Your task to perform on an android device: Empty the shopping cart on walmart.com. Add "alienware aurora" to the cart on walmart.com, then select checkout. Image 0: 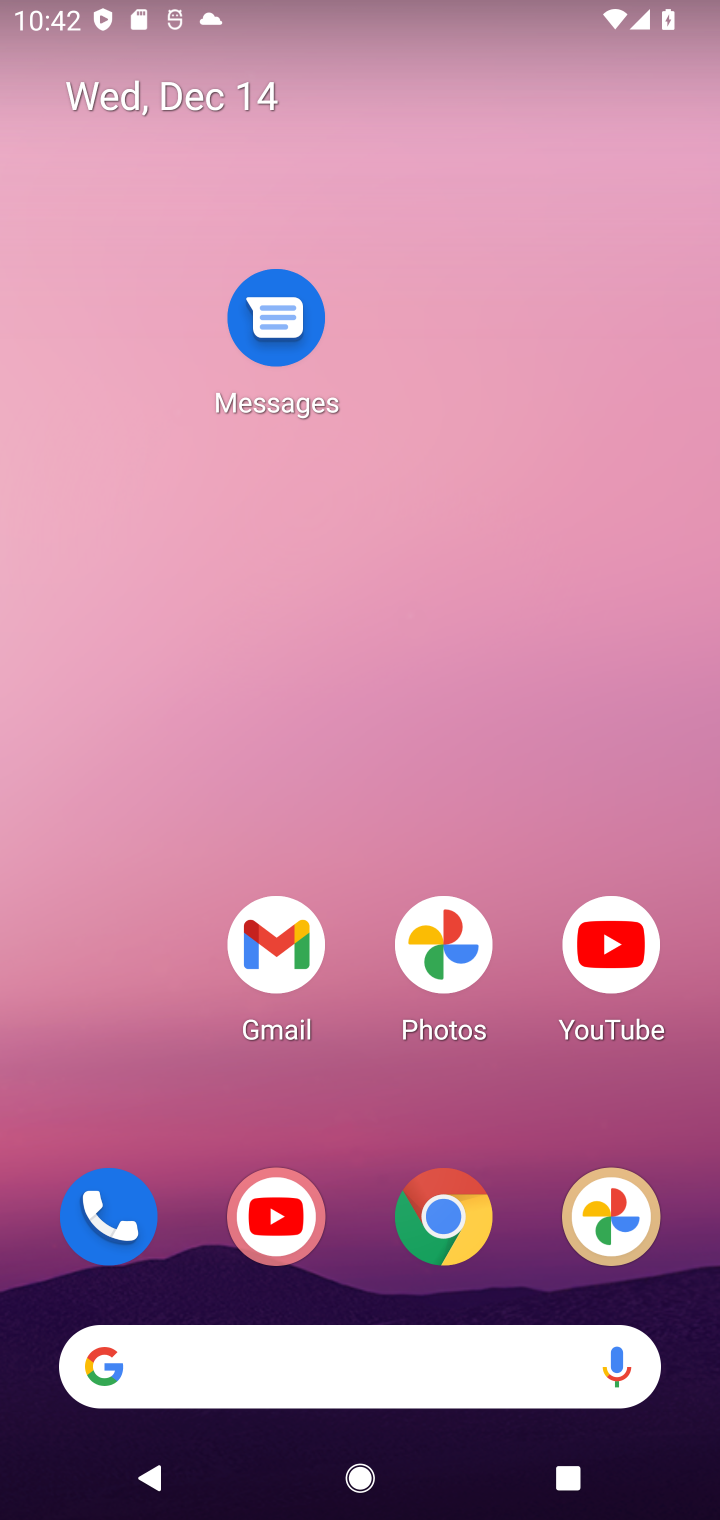
Step 0: drag from (420, 834) to (417, 383)
Your task to perform on an android device: Empty the shopping cart on walmart.com. Add "alienware aurora" to the cart on walmart.com, then select checkout. Image 1: 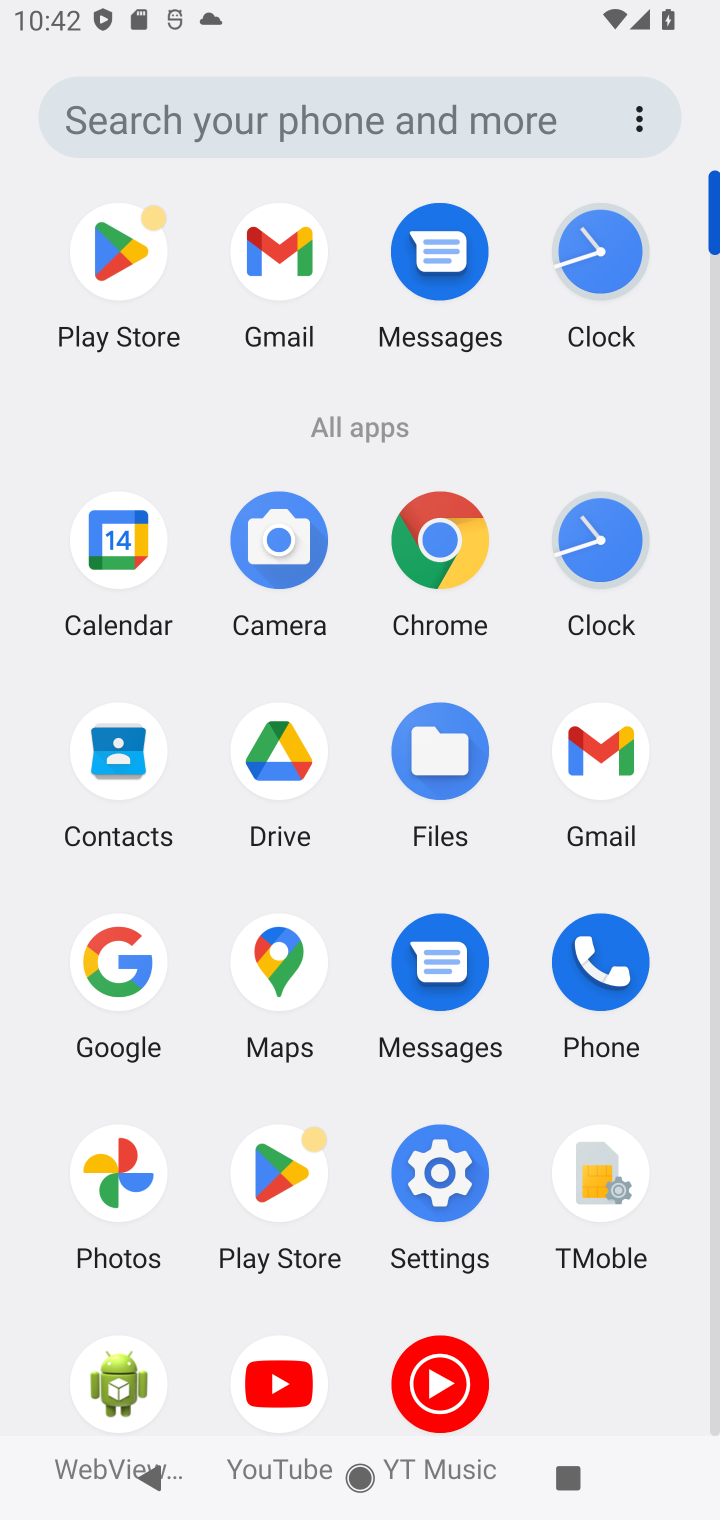
Step 1: click (121, 945)
Your task to perform on an android device: Empty the shopping cart on walmart.com. Add "alienware aurora" to the cart on walmart.com, then select checkout. Image 2: 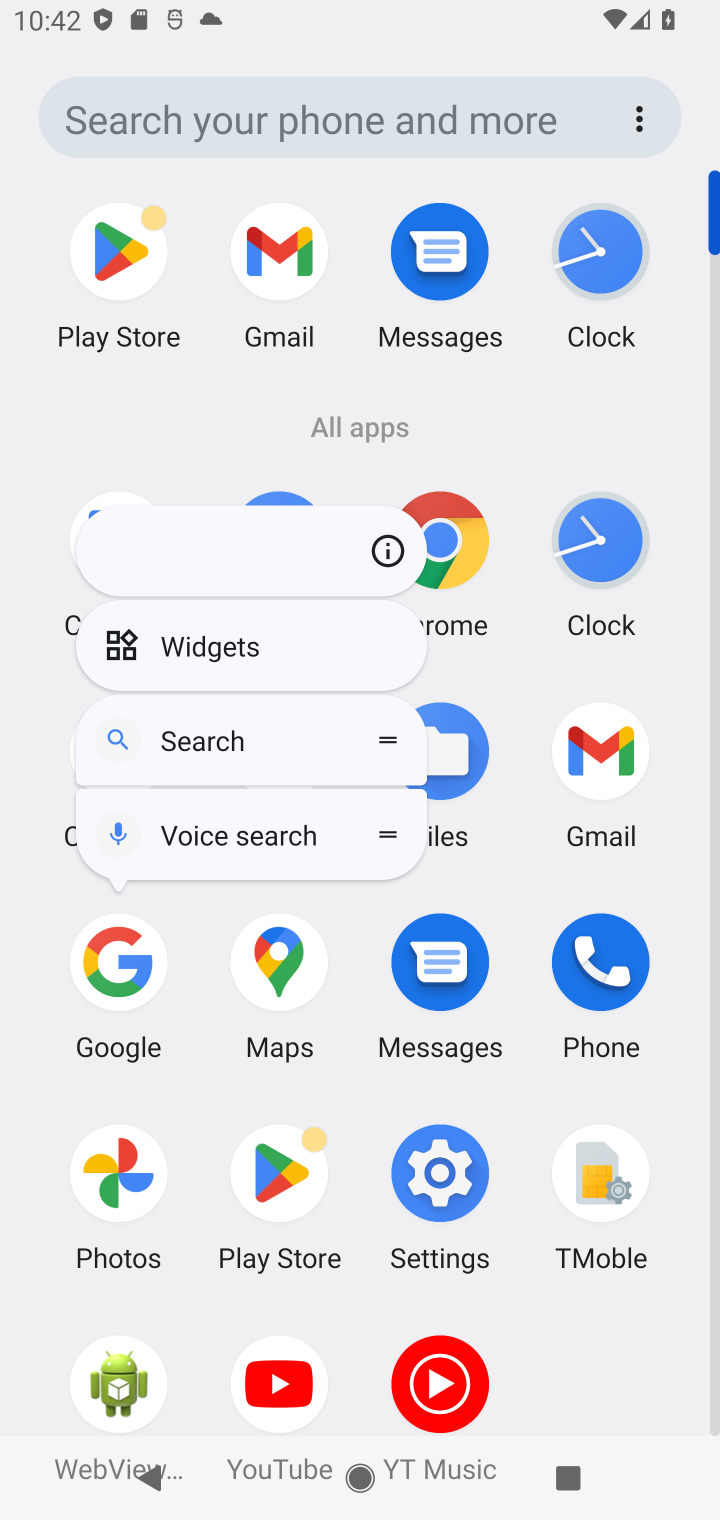
Step 2: click (103, 976)
Your task to perform on an android device: Empty the shopping cart on walmart.com. Add "alienware aurora" to the cart on walmart.com, then select checkout. Image 3: 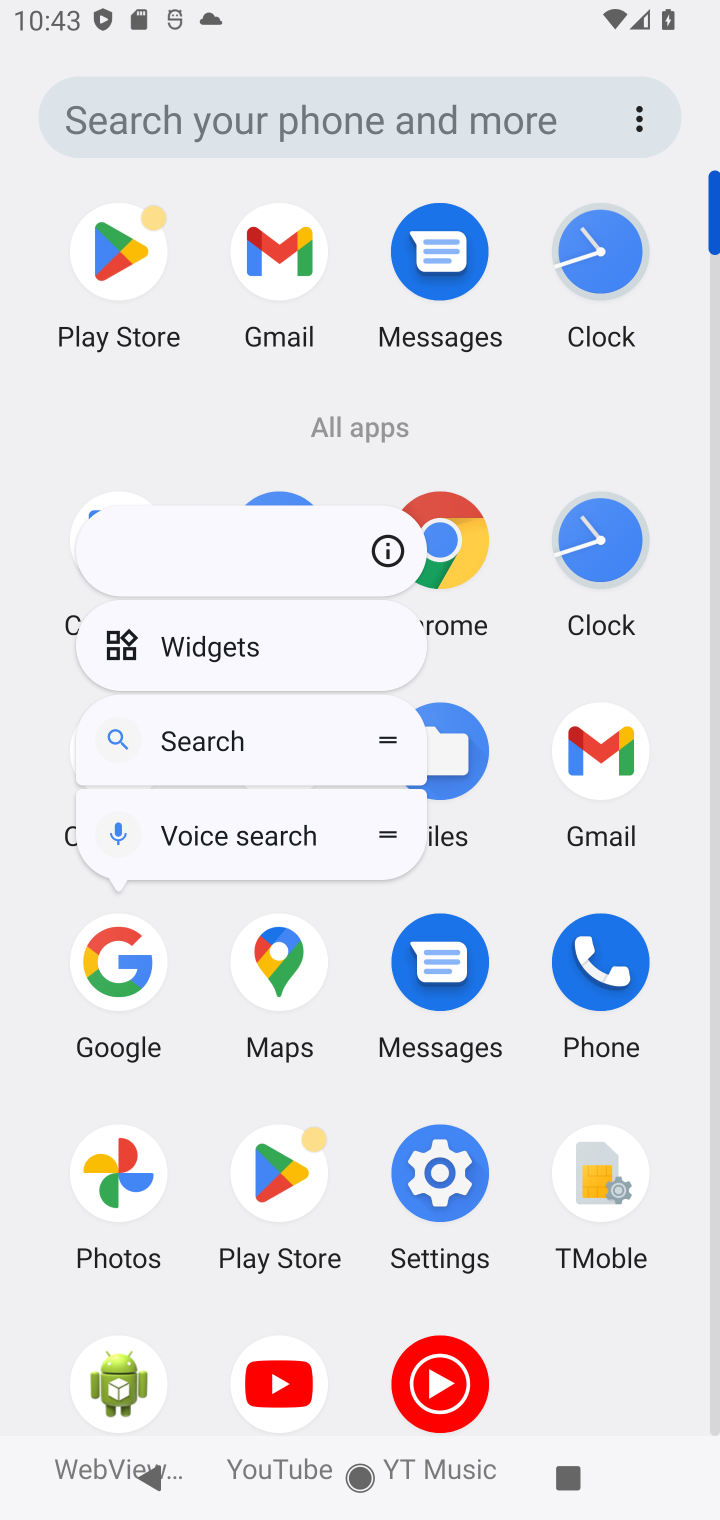
Step 3: click (112, 959)
Your task to perform on an android device: Empty the shopping cart on walmart.com. Add "alienware aurora" to the cart on walmart.com, then select checkout. Image 4: 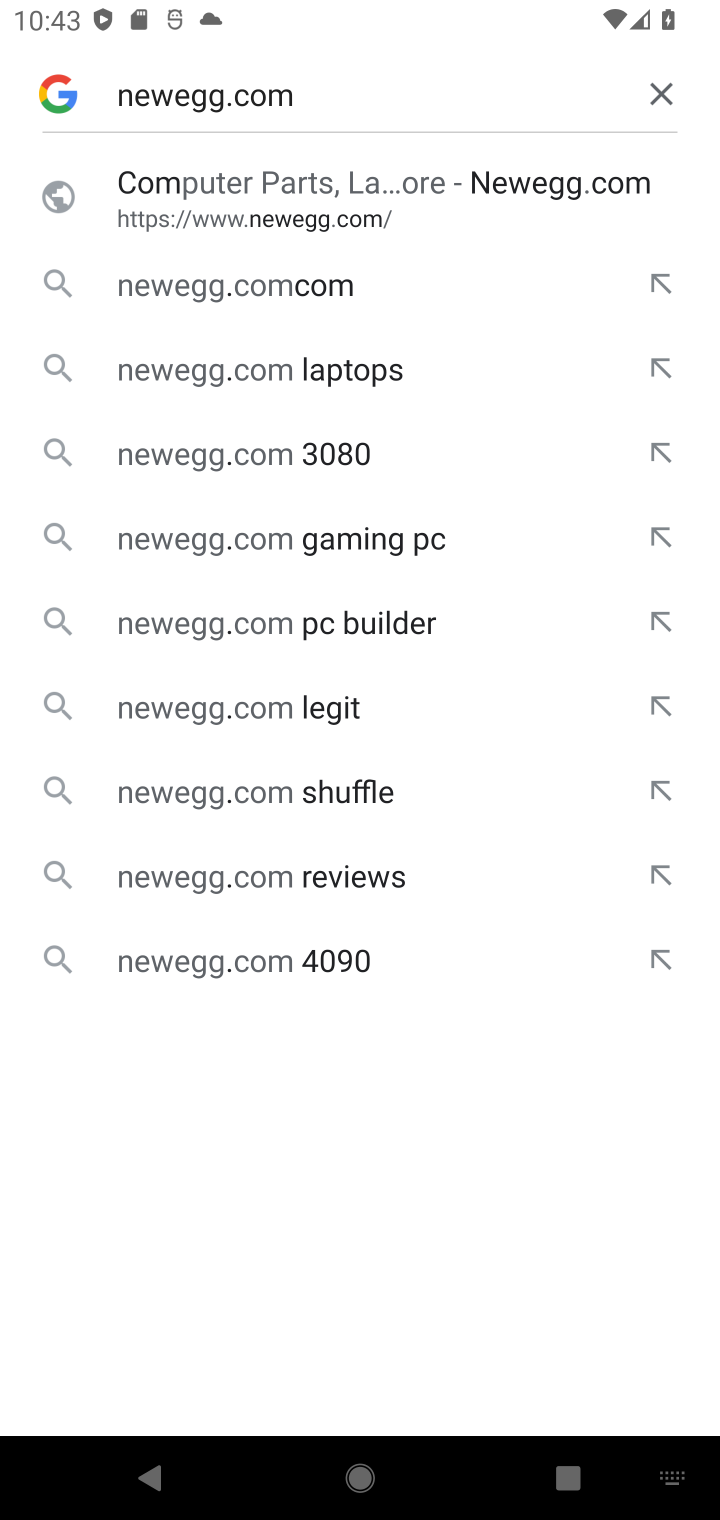
Step 4: click (677, 94)
Your task to perform on an android device: Empty the shopping cart on walmart.com. Add "alienware aurora" to the cart on walmart.com, then select checkout. Image 5: 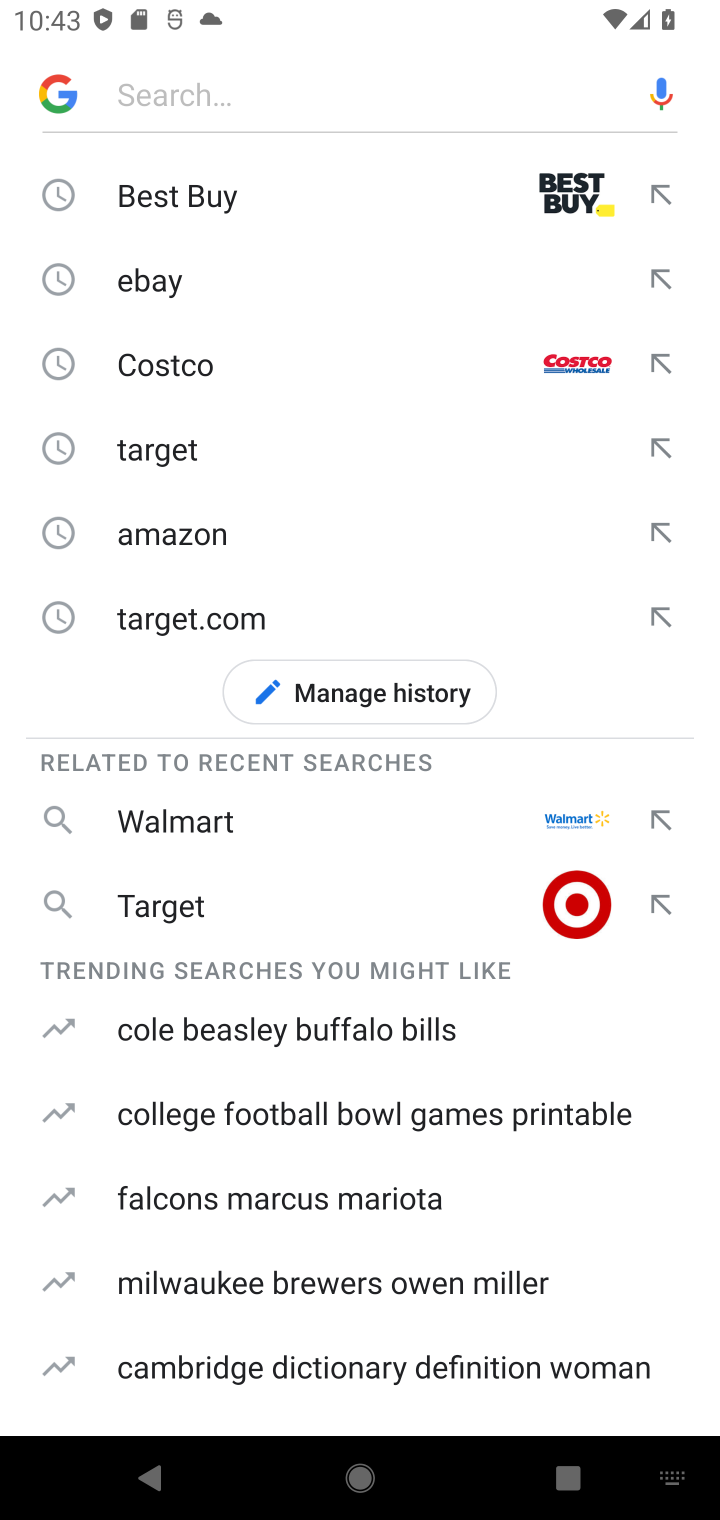
Step 5: click (161, 822)
Your task to perform on an android device: Empty the shopping cart on walmart.com. Add "alienware aurora" to the cart on walmart.com, then select checkout. Image 6: 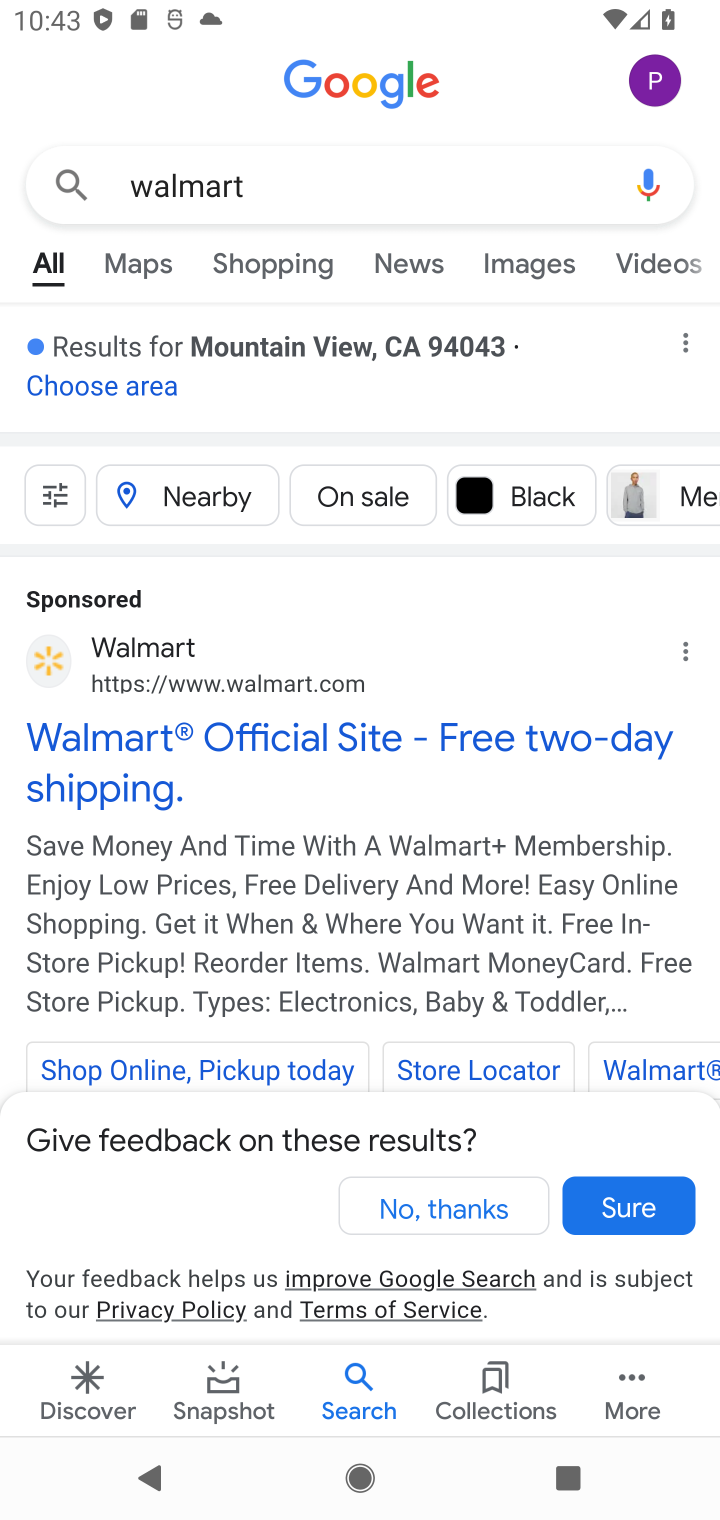
Step 6: click (157, 756)
Your task to perform on an android device: Empty the shopping cart on walmart.com. Add "alienware aurora" to the cart on walmart.com, then select checkout. Image 7: 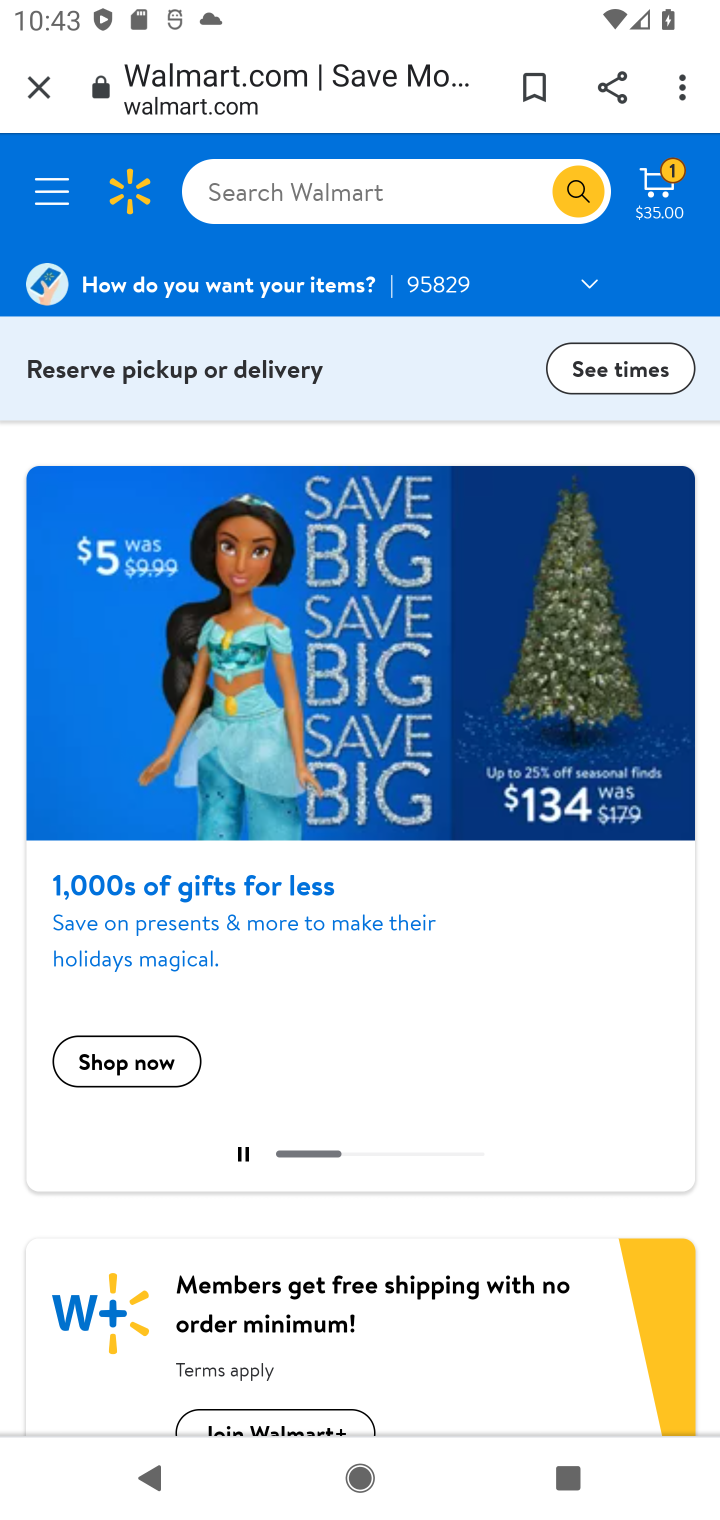
Step 7: click (656, 175)
Your task to perform on an android device: Empty the shopping cart on walmart.com. Add "alienware aurora" to the cart on walmart.com, then select checkout. Image 8: 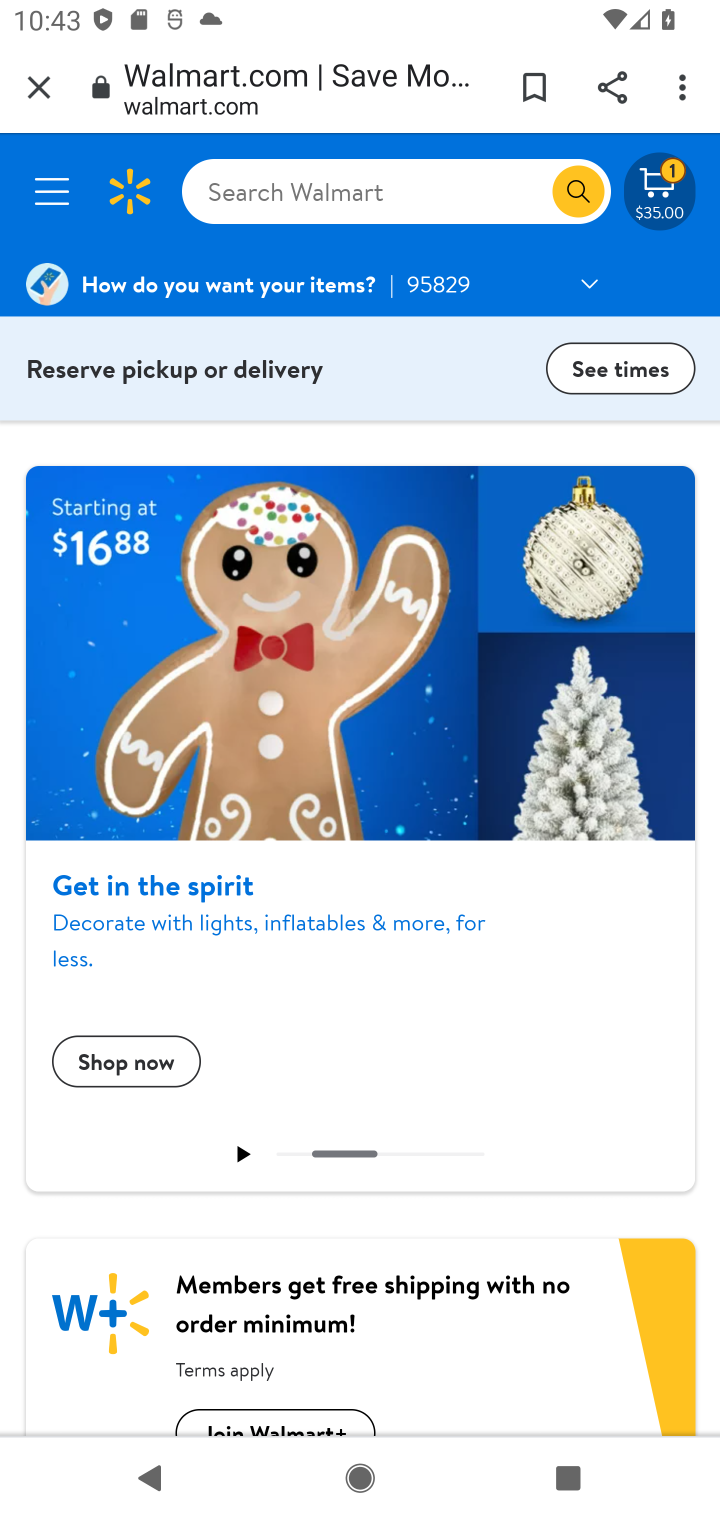
Step 8: drag from (416, 945) to (421, 289)
Your task to perform on an android device: Empty the shopping cart on walmart.com. Add "alienware aurora" to the cart on walmart.com, then select checkout. Image 9: 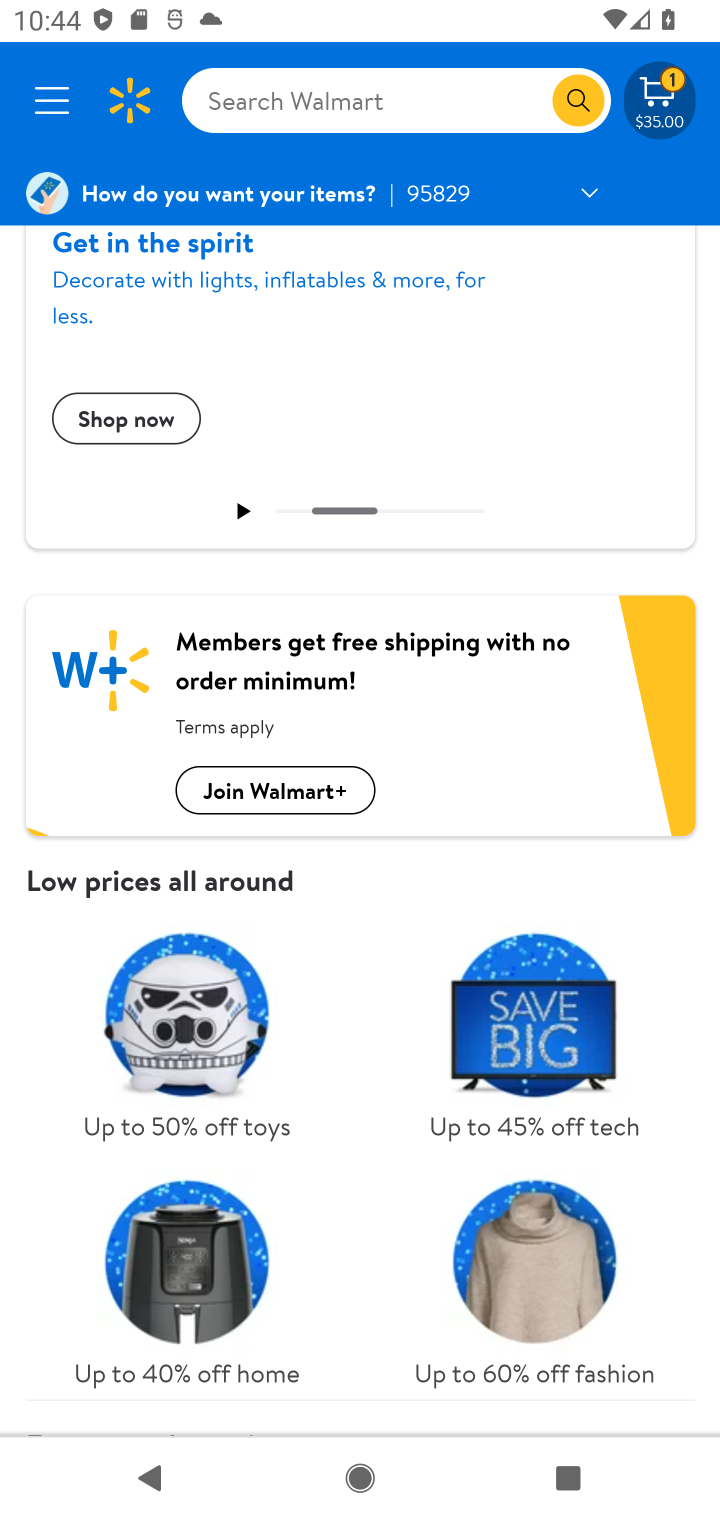
Step 9: drag from (395, 421) to (425, 897)
Your task to perform on an android device: Empty the shopping cart on walmart.com. Add "alienware aurora" to the cart on walmart.com, then select checkout. Image 10: 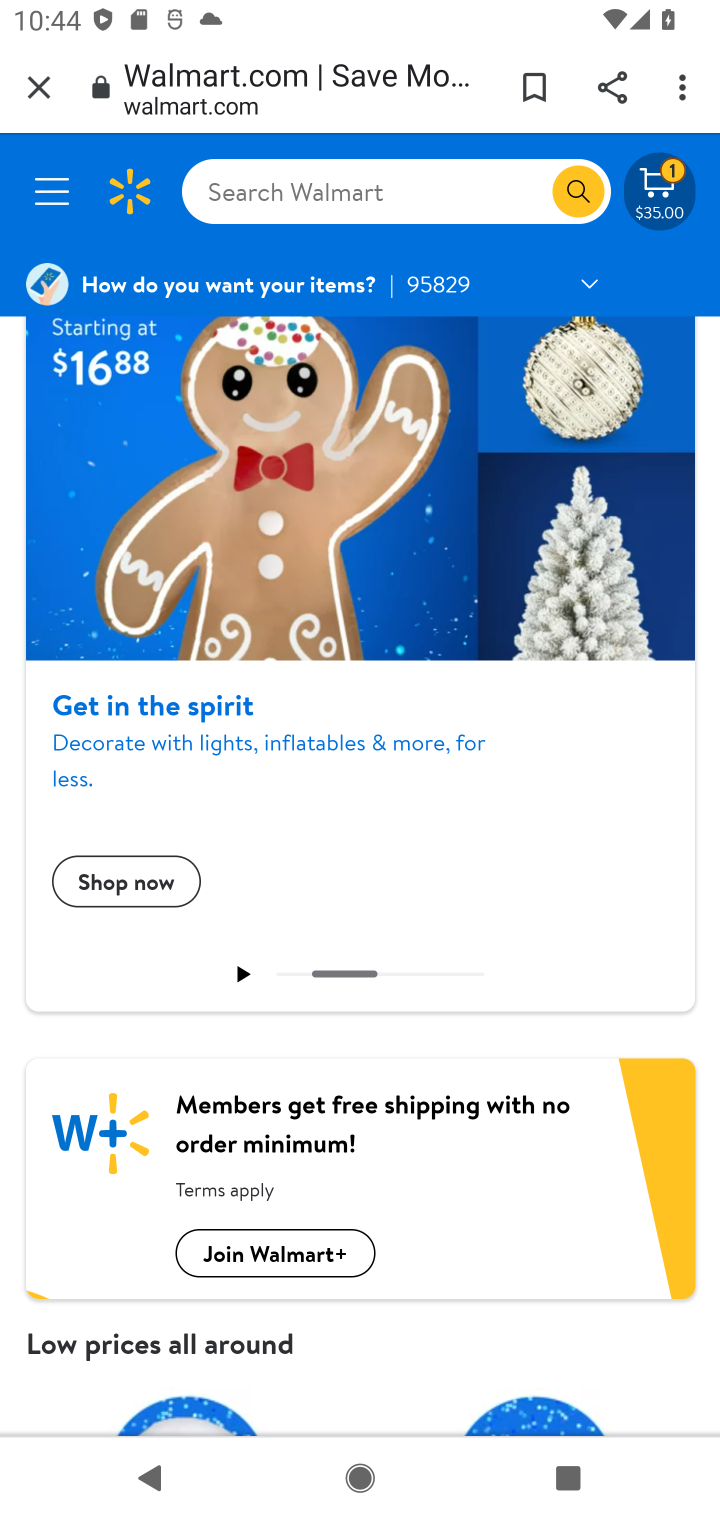
Step 10: drag from (447, 463) to (463, 922)
Your task to perform on an android device: Empty the shopping cart on walmart.com. Add "alienware aurora" to the cart on walmart.com, then select checkout. Image 11: 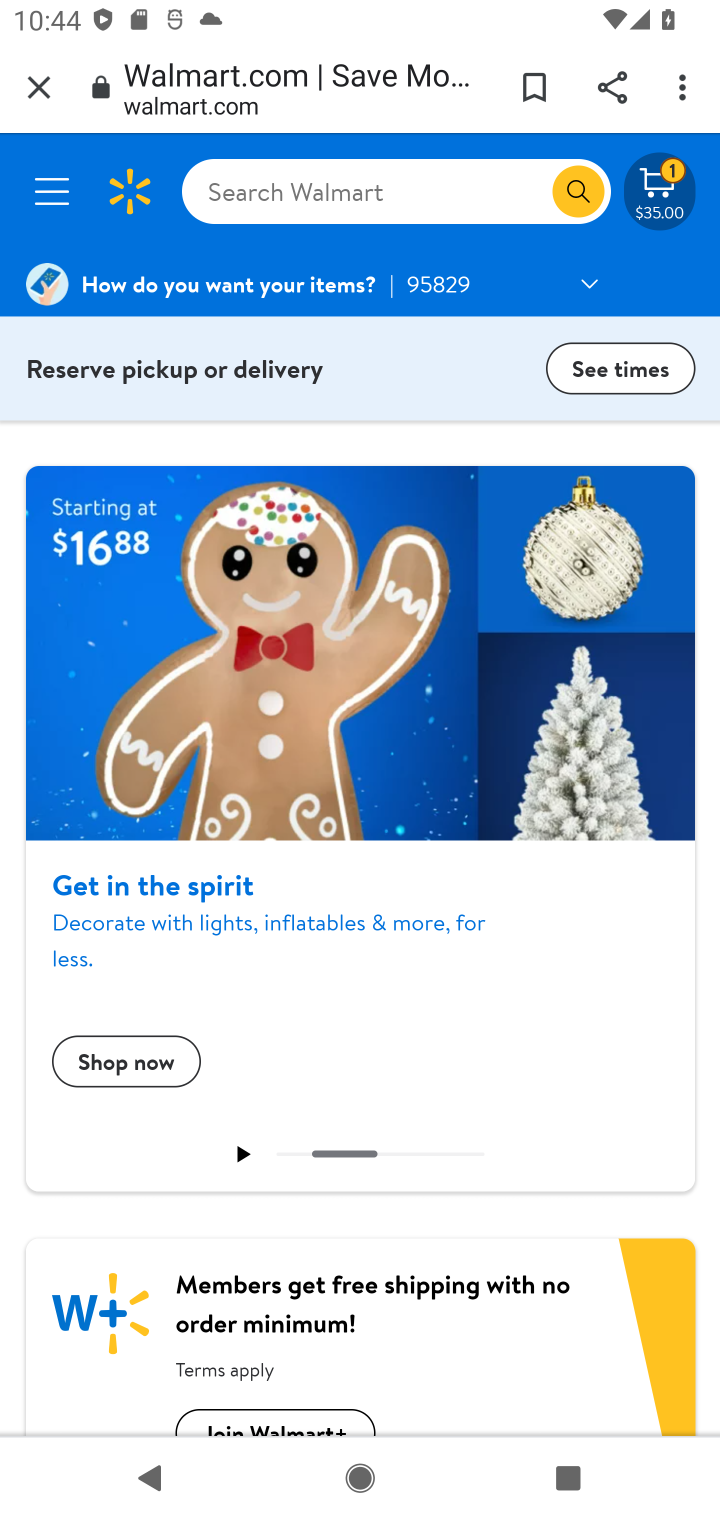
Step 11: drag from (353, 382) to (312, 1029)
Your task to perform on an android device: Empty the shopping cart on walmart.com. Add "alienware aurora" to the cart on walmart.com, then select checkout. Image 12: 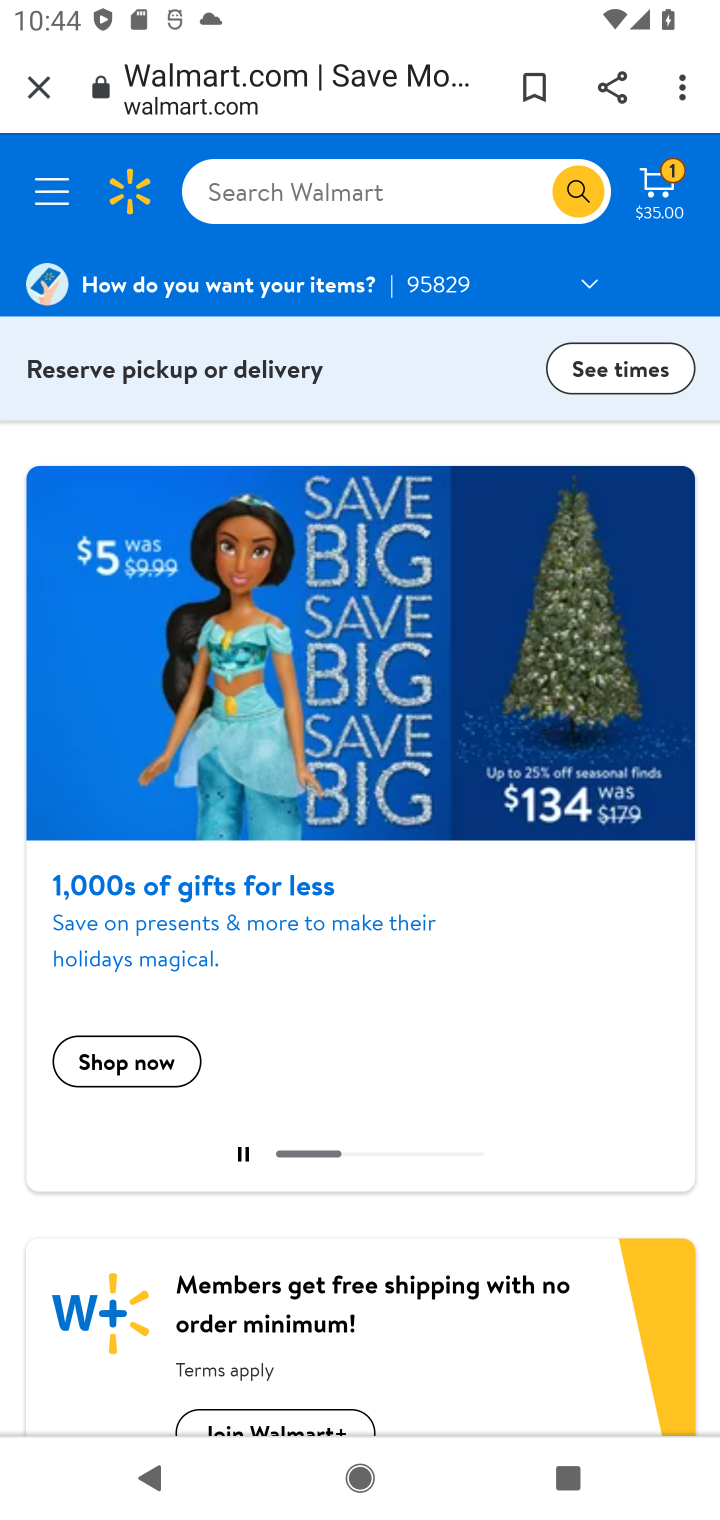
Step 12: drag from (373, 1104) to (344, 616)
Your task to perform on an android device: Empty the shopping cart on walmart.com. Add "alienware aurora" to the cart on walmart.com, then select checkout. Image 13: 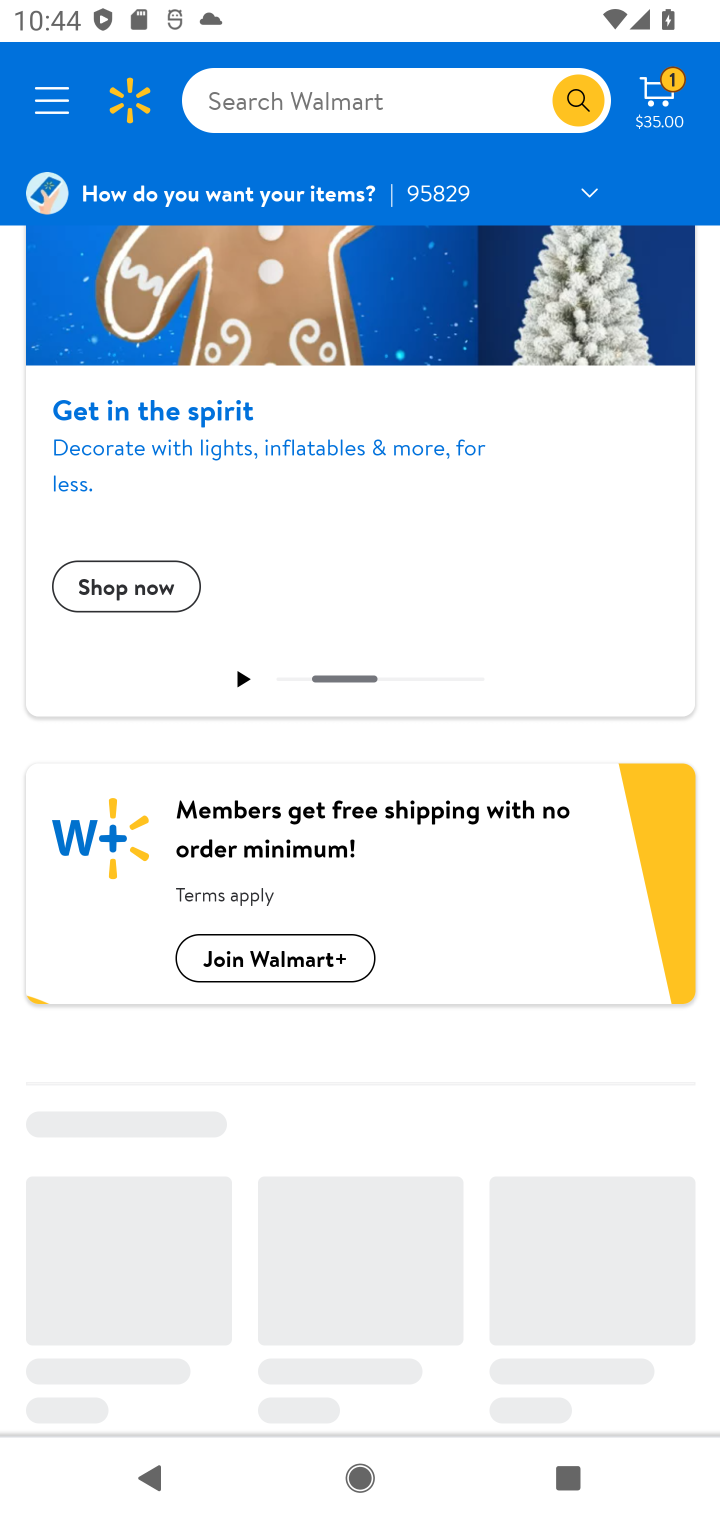
Step 13: drag from (394, 1184) to (400, 603)
Your task to perform on an android device: Empty the shopping cart on walmart.com. Add "alienware aurora" to the cart on walmart.com, then select checkout. Image 14: 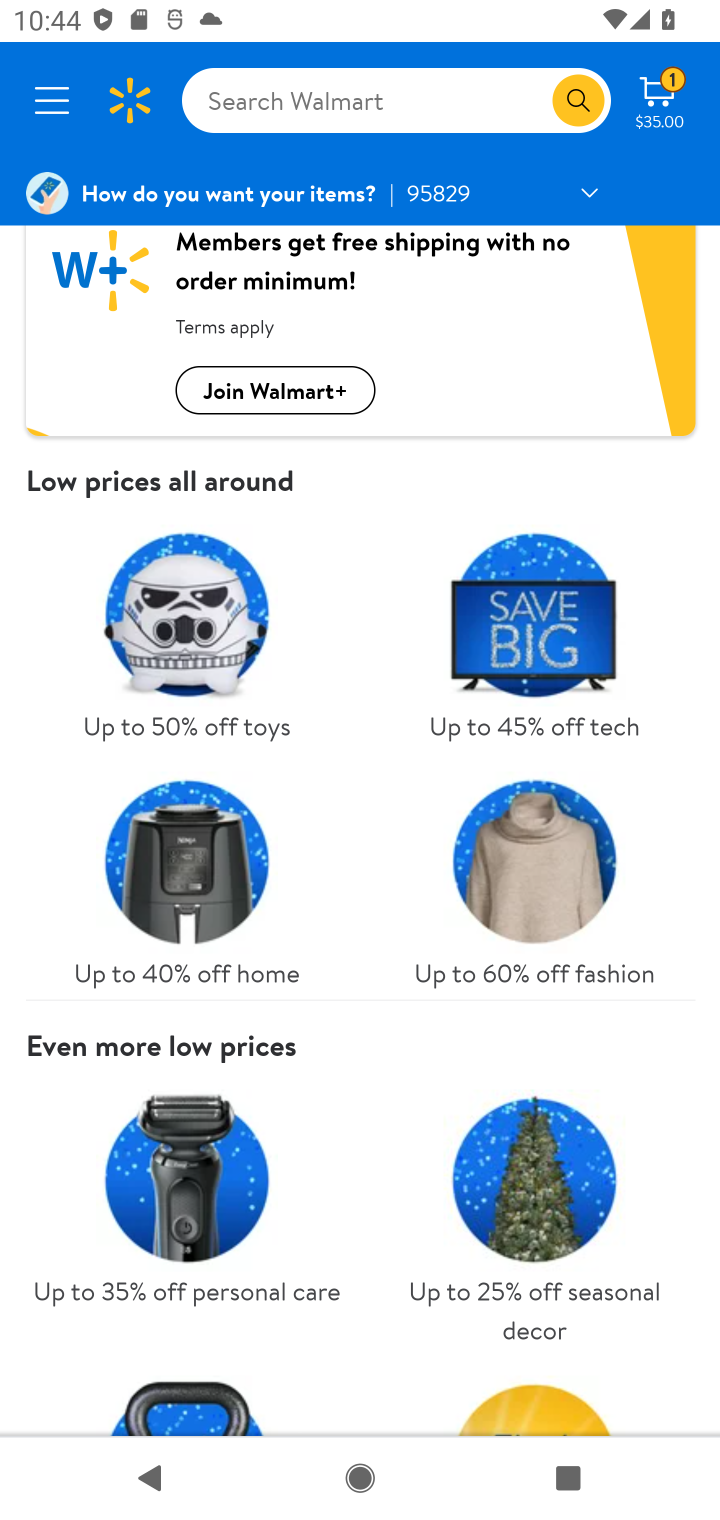
Step 14: drag from (384, 1085) to (335, 589)
Your task to perform on an android device: Empty the shopping cart on walmart.com. Add "alienware aurora" to the cart on walmart.com, then select checkout. Image 15: 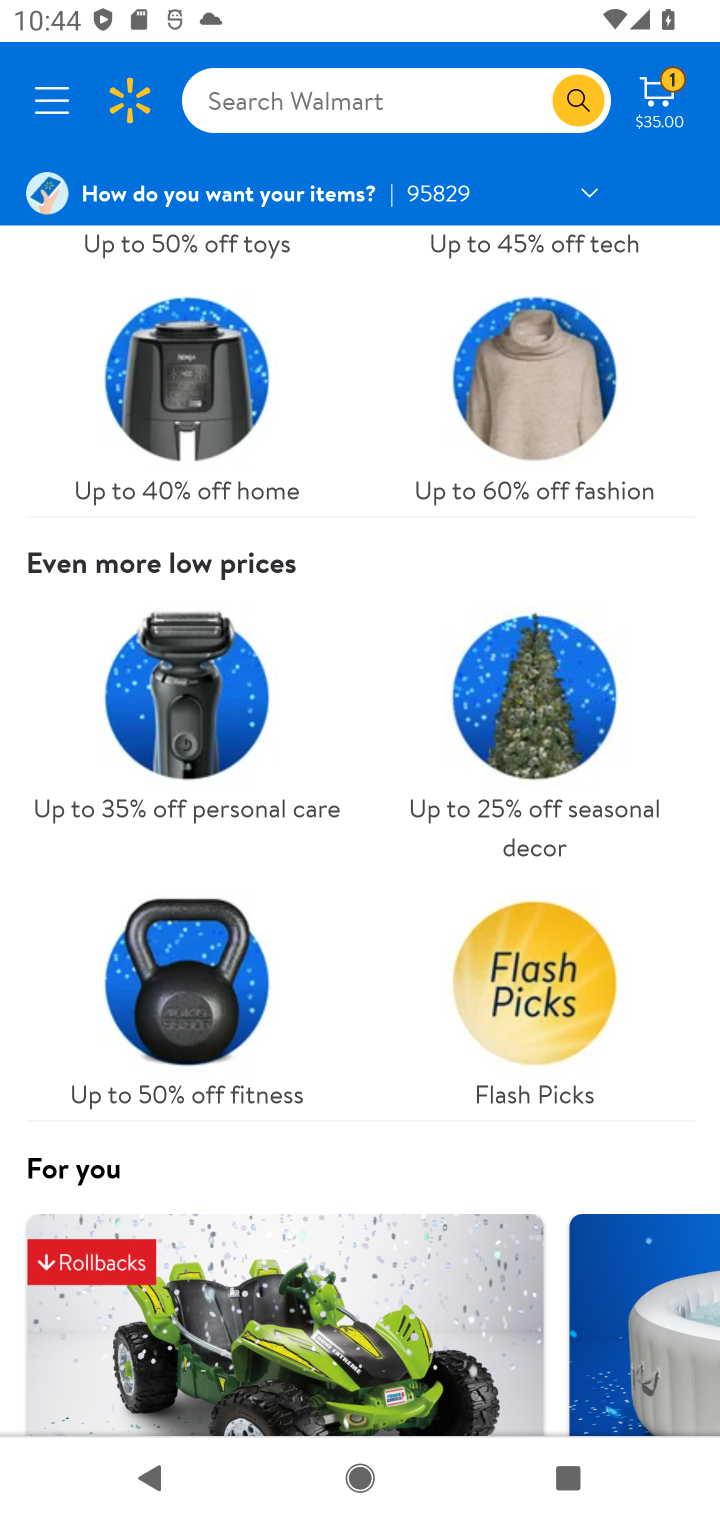
Step 15: click (659, 97)
Your task to perform on an android device: Empty the shopping cart on walmart.com. Add "alienware aurora" to the cart on walmart.com, then select checkout. Image 16: 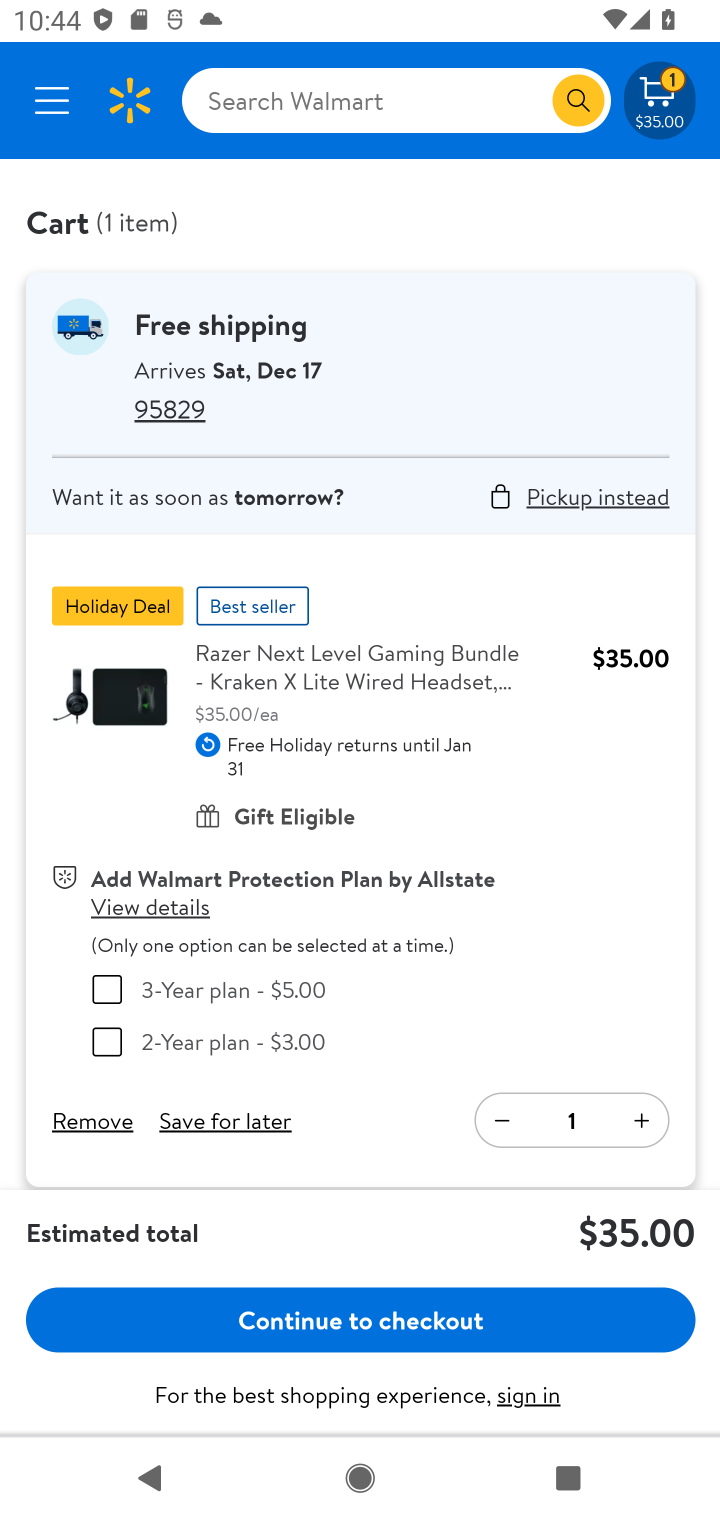
Step 16: click (96, 1126)
Your task to perform on an android device: Empty the shopping cart on walmart.com. Add "alienware aurora" to the cart on walmart.com, then select checkout. Image 17: 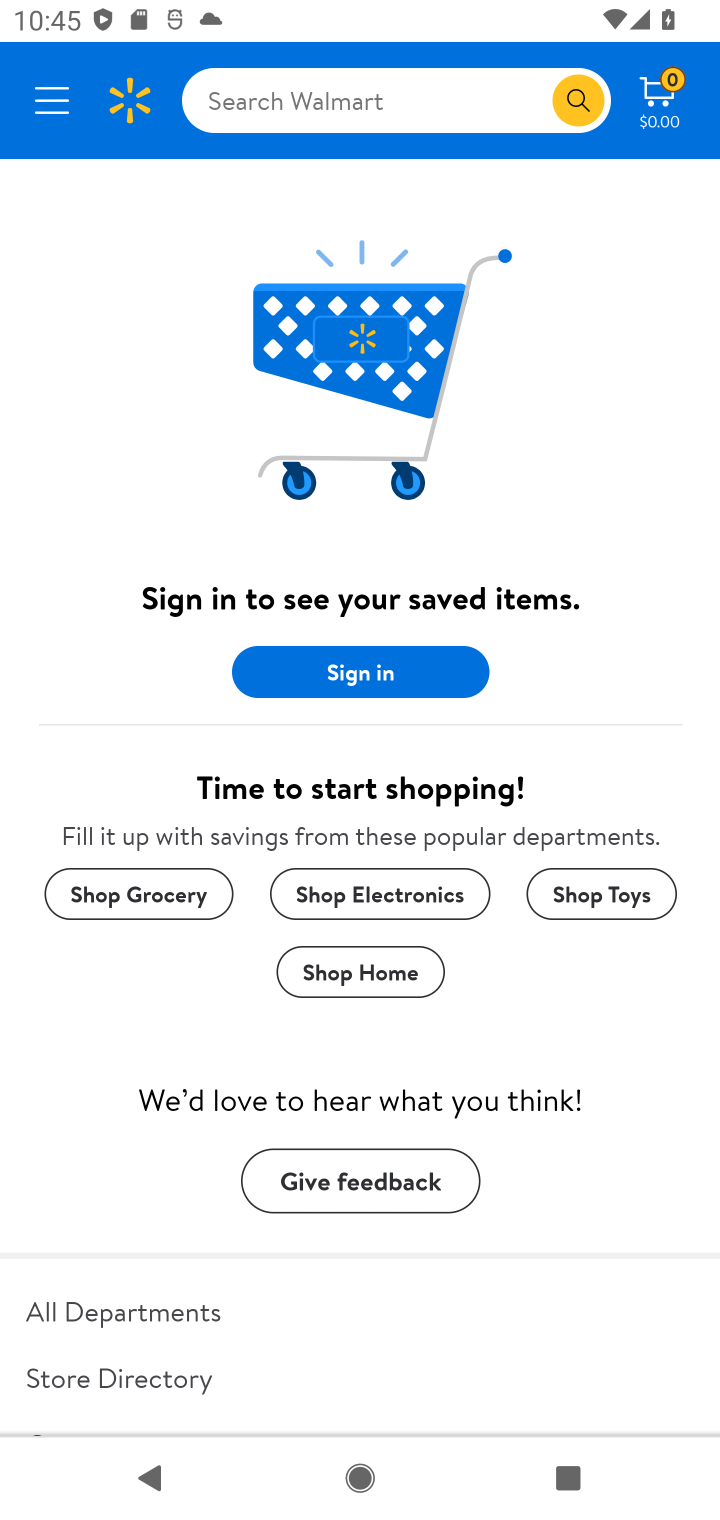
Step 17: click (344, 90)
Your task to perform on an android device: Empty the shopping cart on walmart.com. Add "alienware aurora" to the cart on walmart.com, then select checkout. Image 18: 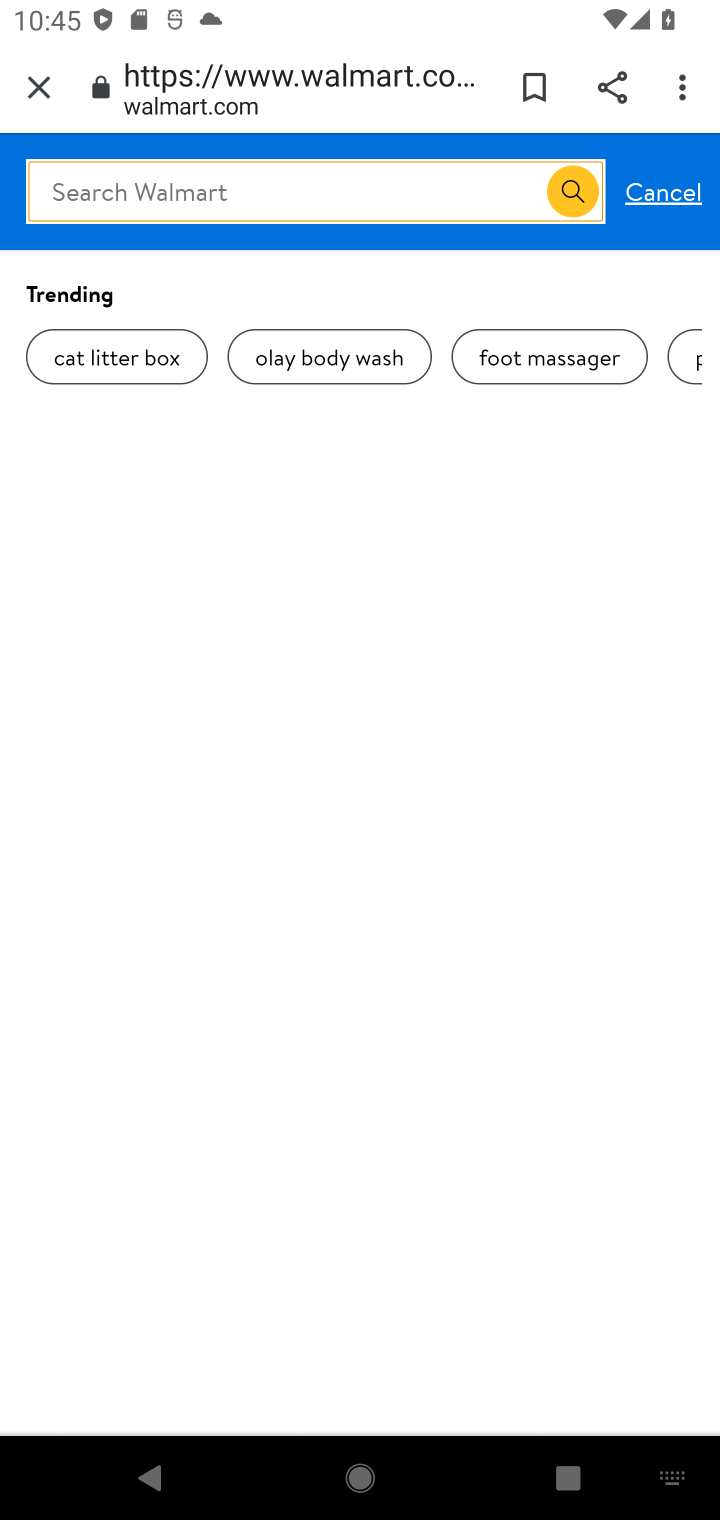
Step 18: type "alienware aurora"
Your task to perform on an android device: Empty the shopping cart on walmart.com. Add "alienware aurora" to the cart on walmart.com, then select checkout. Image 19: 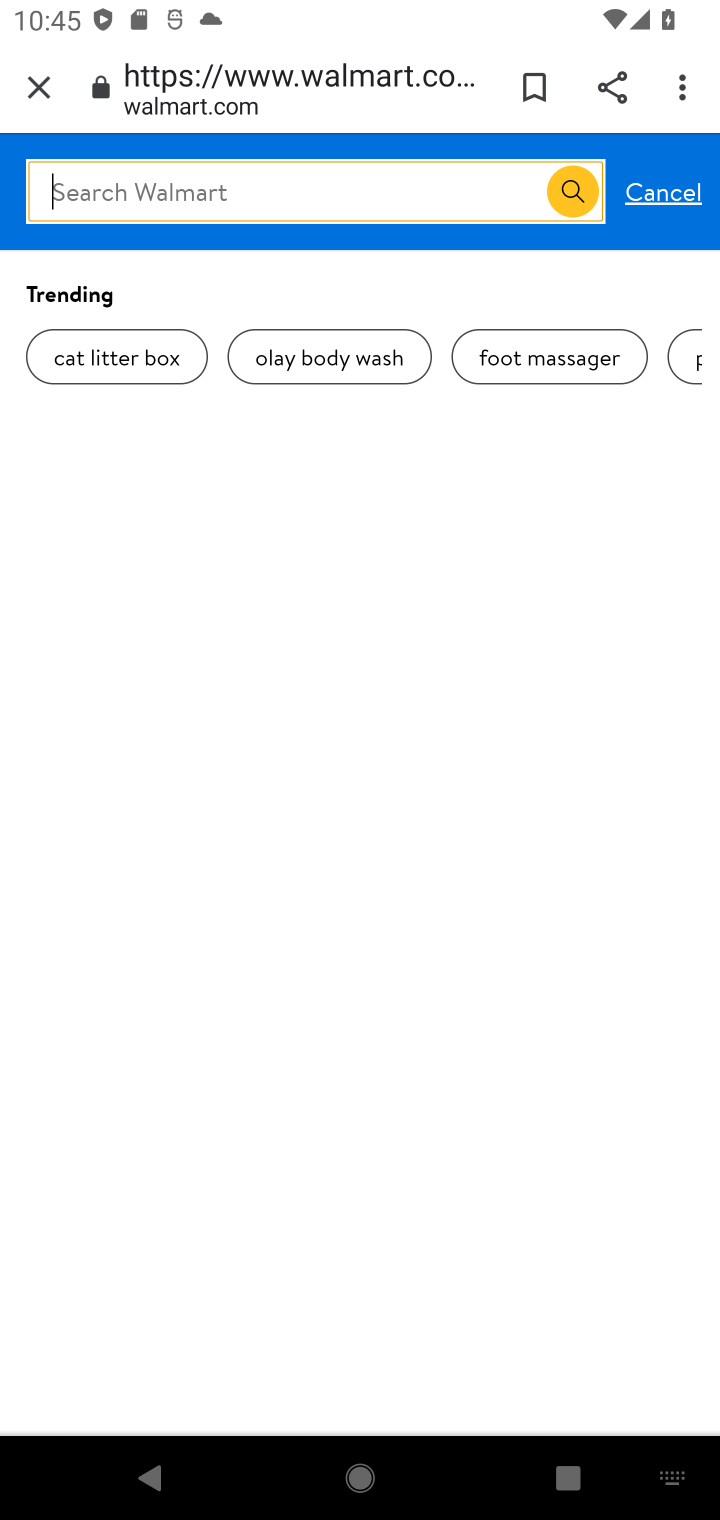
Step 19: click (558, 173)
Your task to perform on an android device: Empty the shopping cart on walmart.com. Add "alienware aurora" to the cart on walmart.com, then select checkout. Image 20: 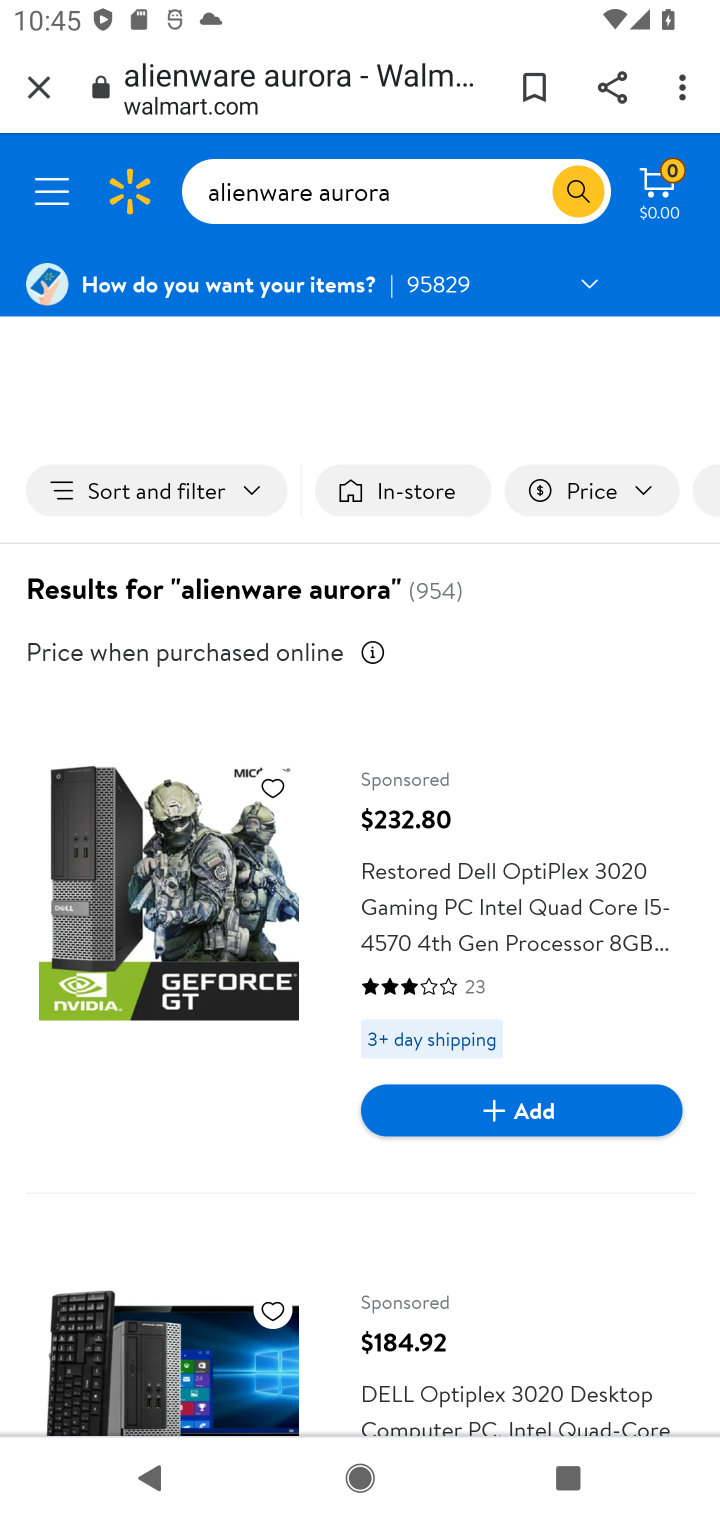
Step 20: click (519, 1105)
Your task to perform on an android device: Empty the shopping cart on walmart.com. Add "alienware aurora" to the cart on walmart.com, then select checkout. Image 21: 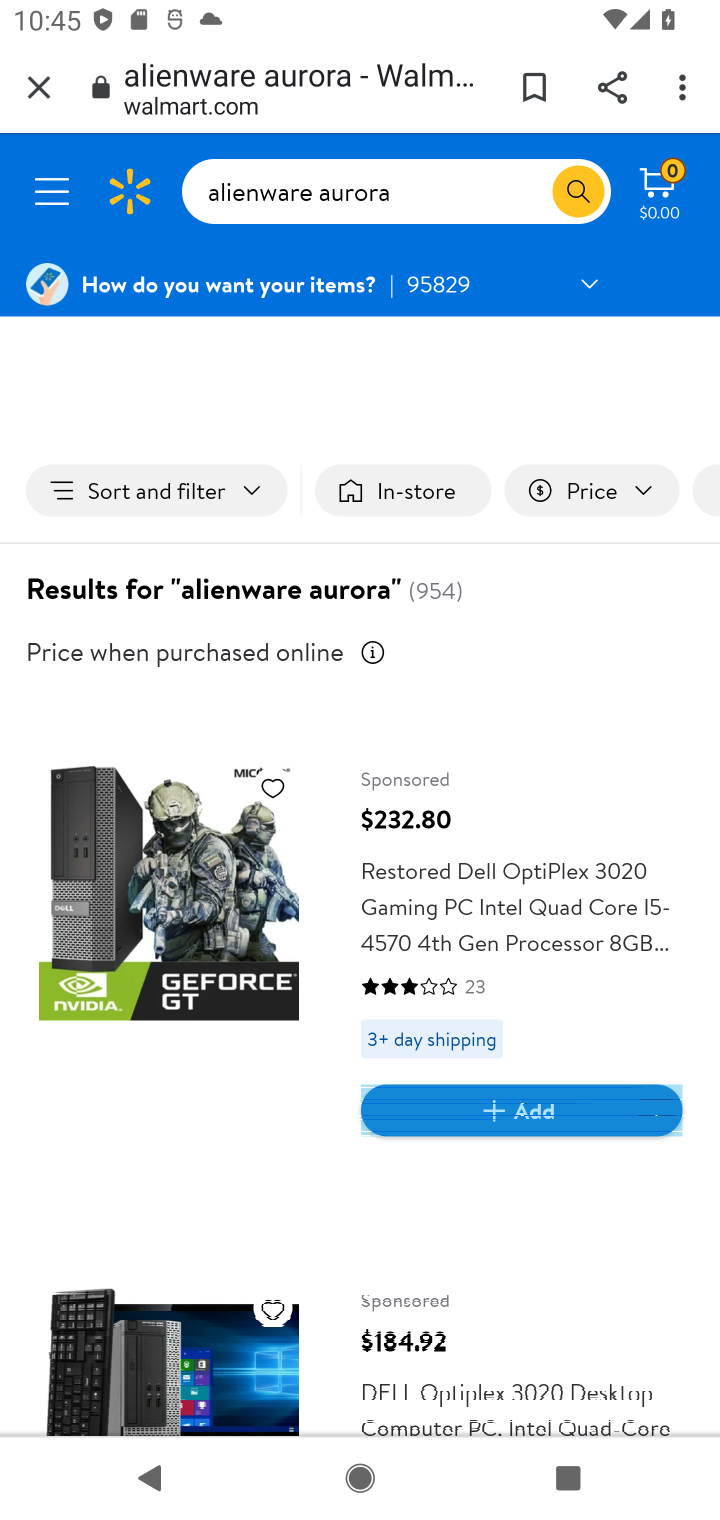
Step 21: click (527, 1114)
Your task to perform on an android device: Empty the shopping cart on walmart.com. Add "alienware aurora" to the cart on walmart.com, then select checkout. Image 22: 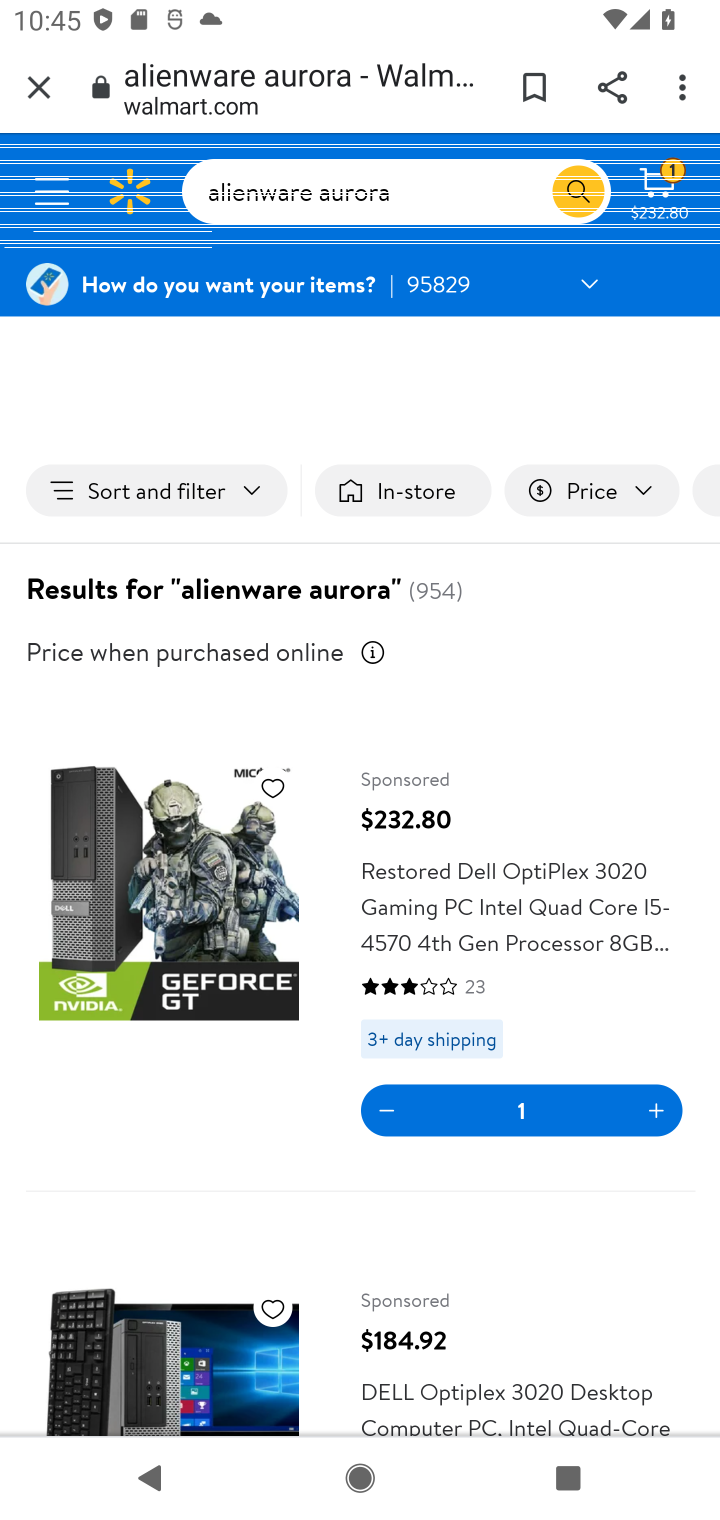
Step 22: click (663, 181)
Your task to perform on an android device: Empty the shopping cart on walmart.com. Add "alienware aurora" to the cart on walmart.com, then select checkout. Image 23: 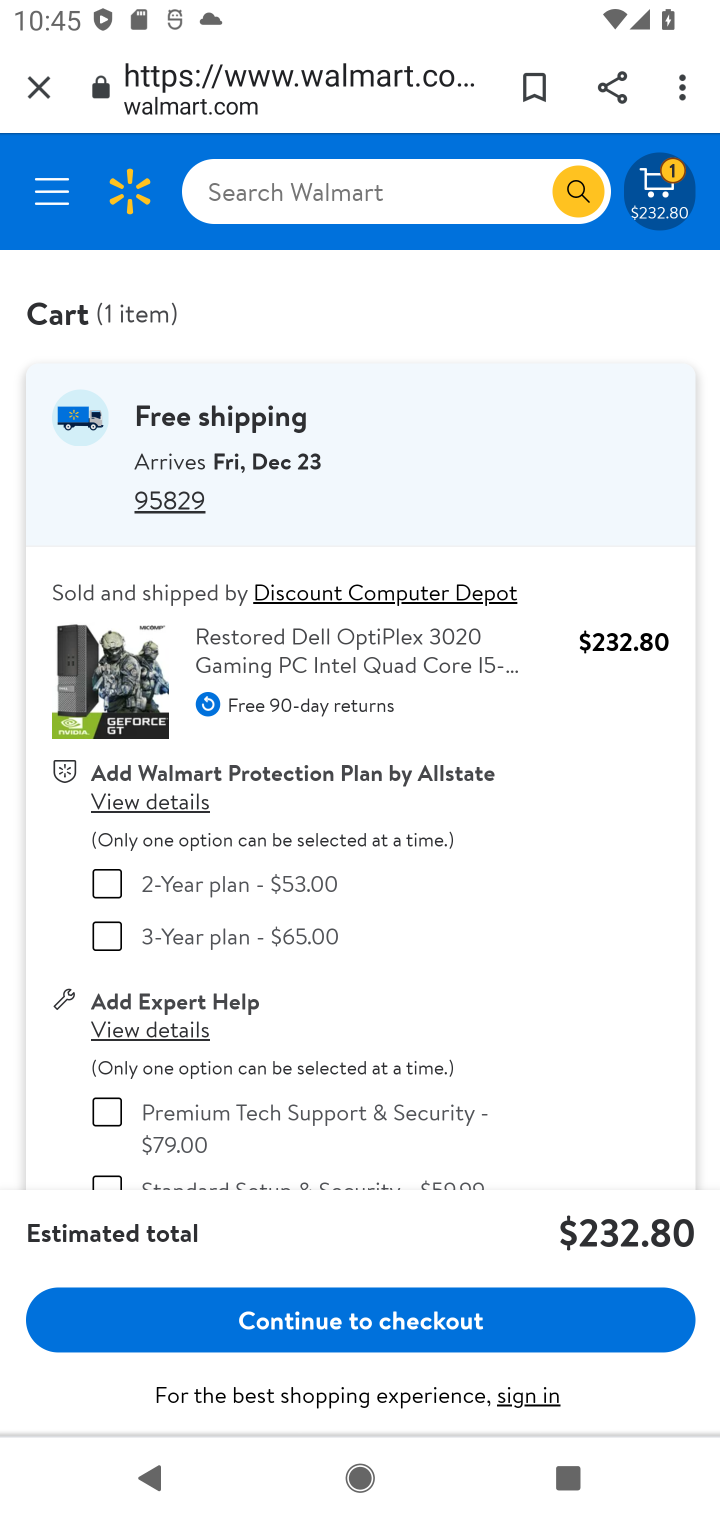
Step 23: click (424, 1325)
Your task to perform on an android device: Empty the shopping cart on walmart.com. Add "alienware aurora" to the cart on walmart.com, then select checkout. Image 24: 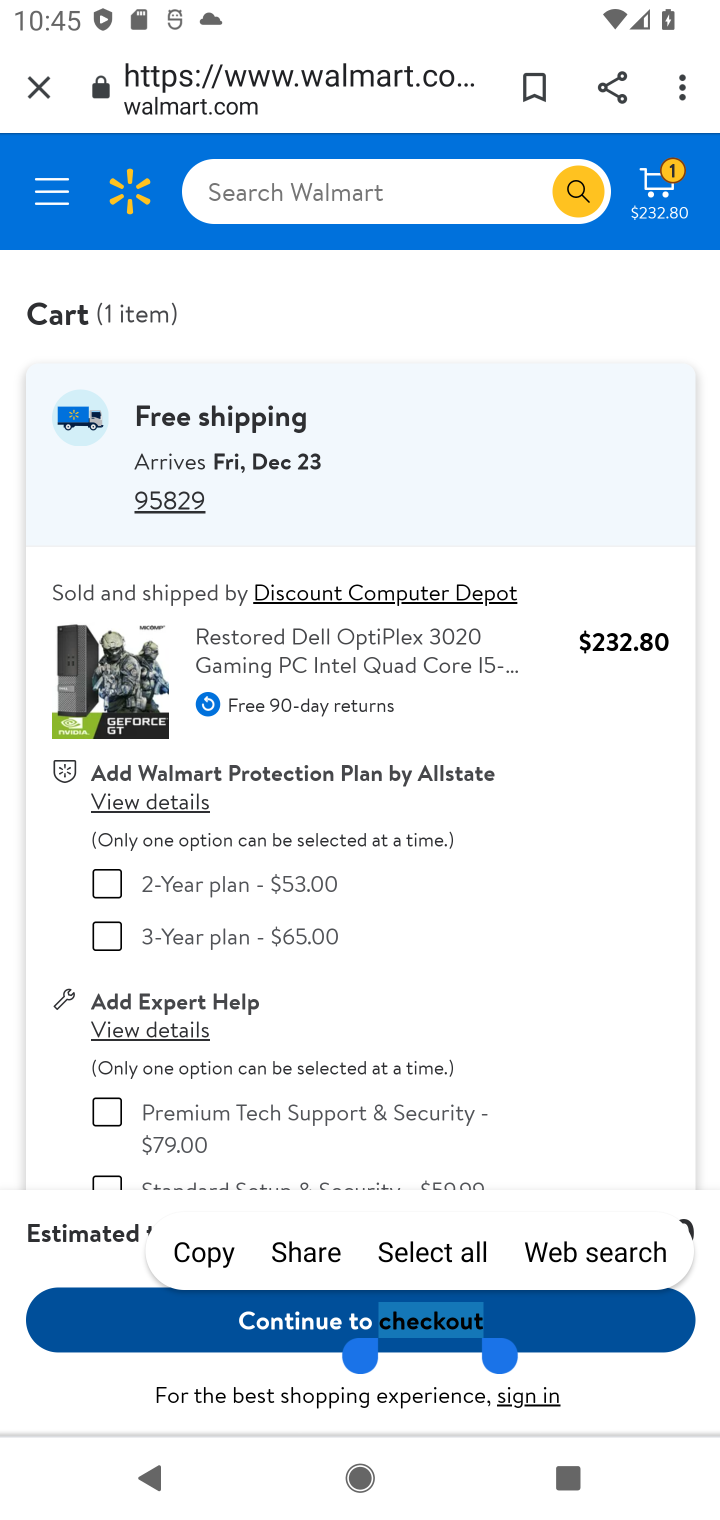
Step 24: click (315, 1331)
Your task to perform on an android device: Empty the shopping cart on walmart.com. Add "alienware aurora" to the cart on walmart.com, then select checkout. Image 25: 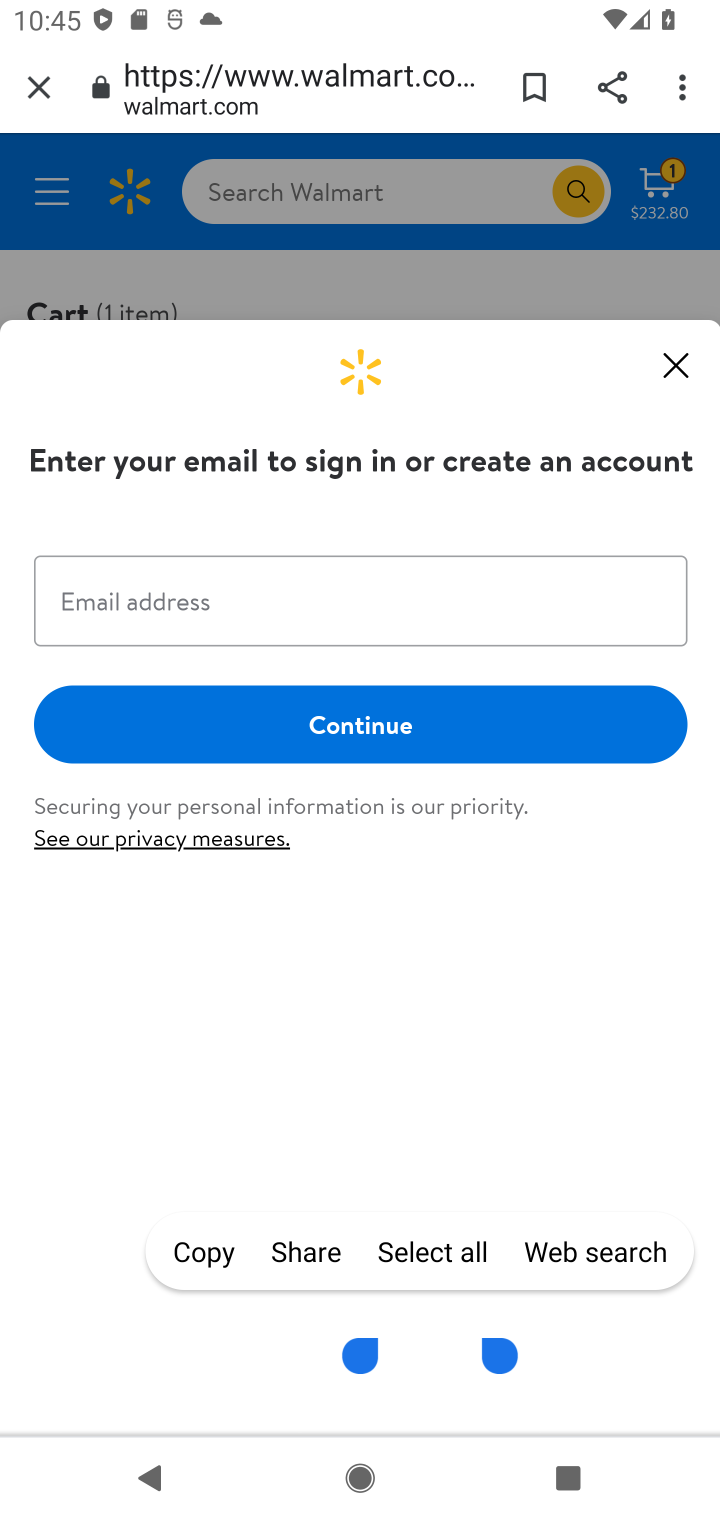
Step 25: task complete